Your task to perform on an android device: Go to Google maps Image 0: 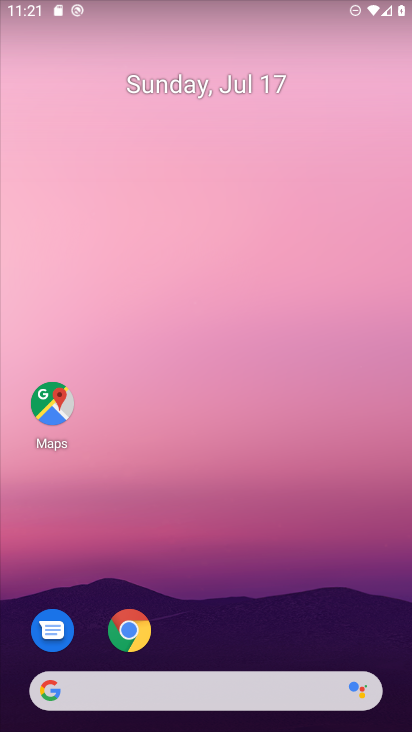
Step 0: click (59, 407)
Your task to perform on an android device: Go to Google maps Image 1: 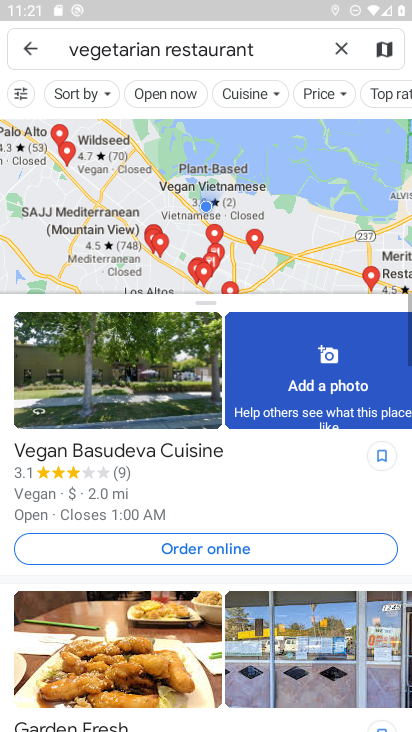
Step 1: task complete